Your task to perform on an android device: Open eBay Image 0: 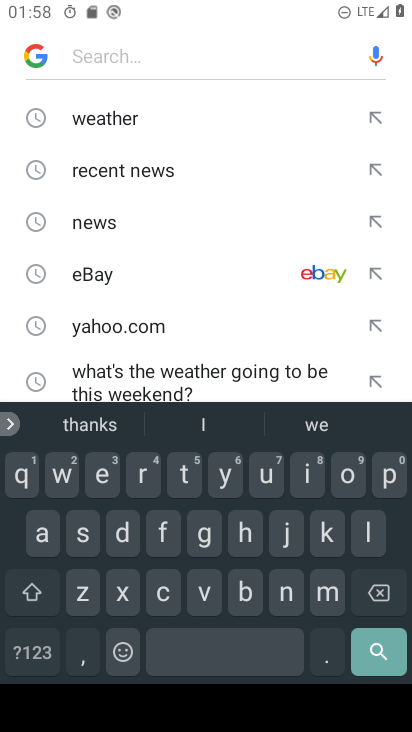
Step 0: press home button
Your task to perform on an android device: Open eBay Image 1: 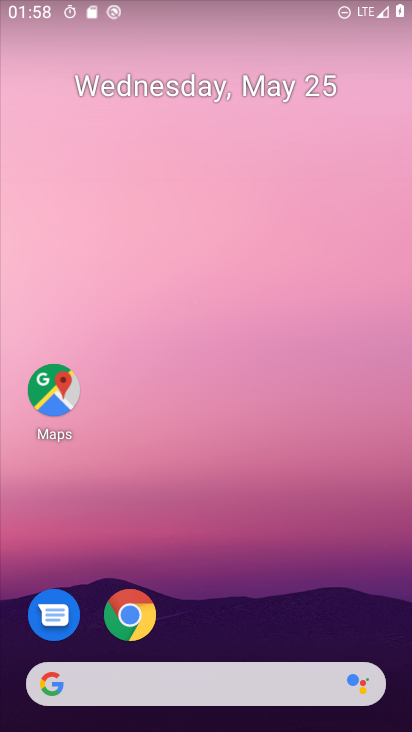
Step 1: drag from (265, 712) to (297, 13)
Your task to perform on an android device: Open eBay Image 2: 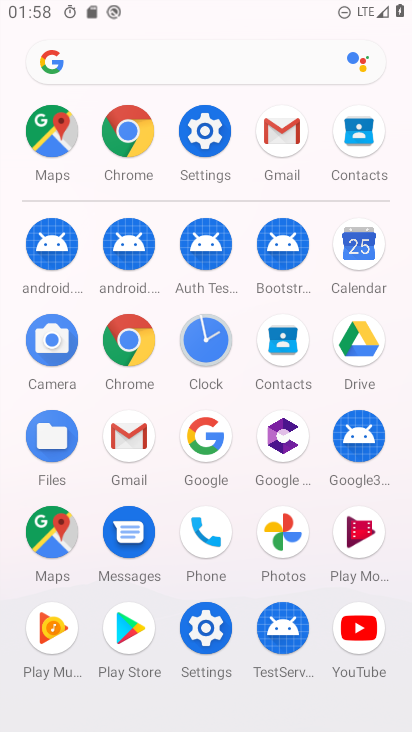
Step 2: click (126, 145)
Your task to perform on an android device: Open eBay Image 3: 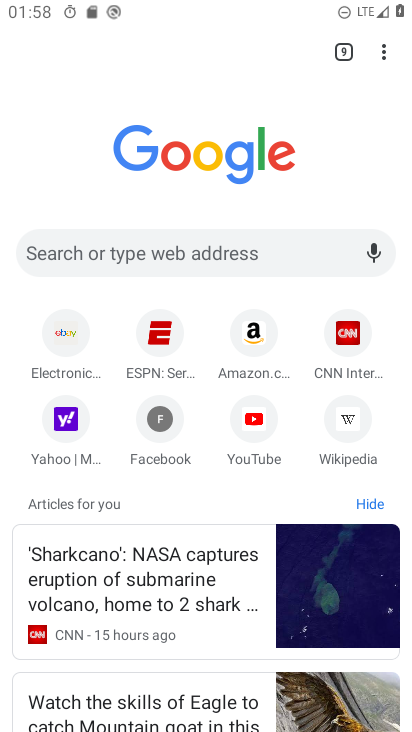
Step 3: click (69, 344)
Your task to perform on an android device: Open eBay Image 4: 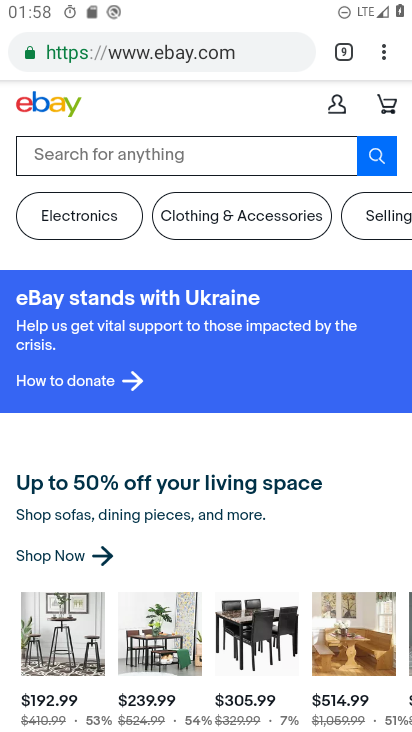
Step 4: task complete